Your task to perform on an android device: turn on improve location accuracy Image 0: 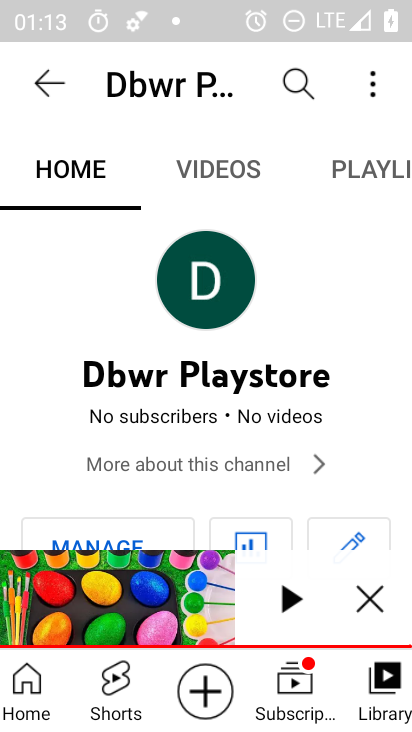
Step 0: press home button
Your task to perform on an android device: turn on improve location accuracy Image 1: 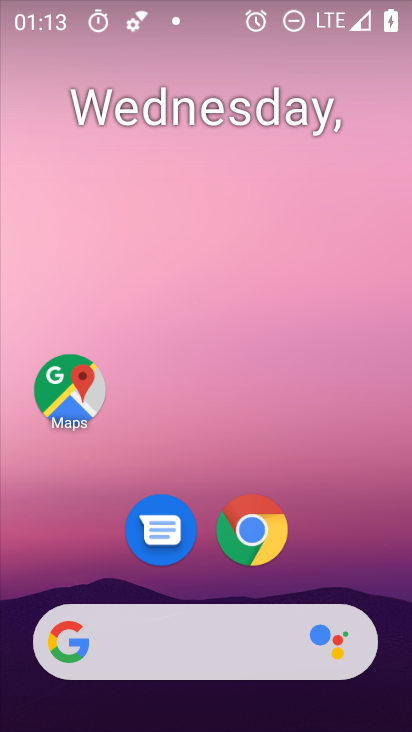
Step 1: drag from (381, 627) to (407, 132)
Your task to perform on an android device: turn on improve location accuracy Image 2: 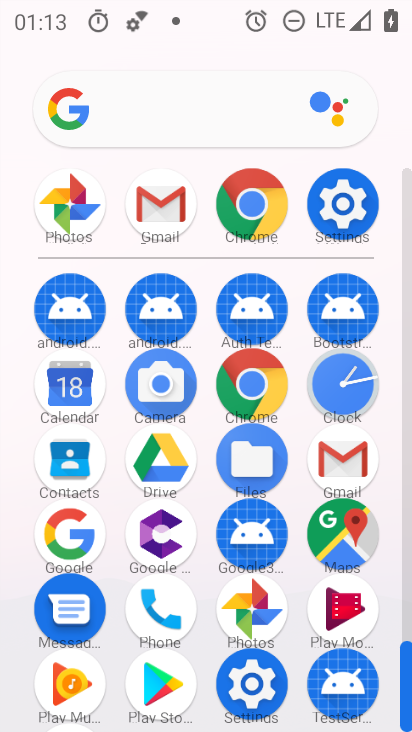
Step 2: click (406, 132)
Your task to perform on an android device: turn on improve location accuracy Image 3: 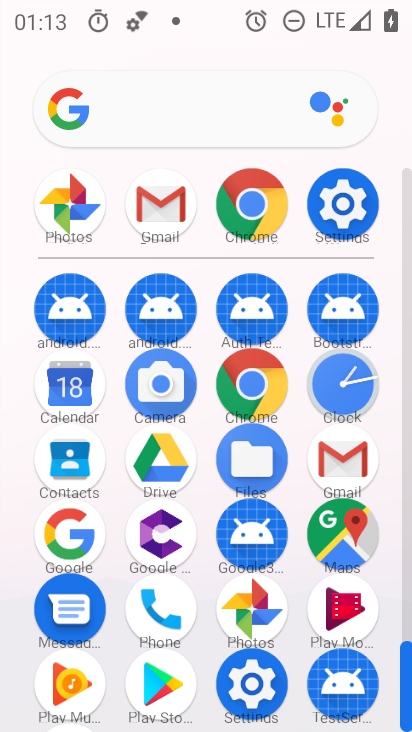
Step 3: click (327, 216)
Your task to perform on an android device: turn on improve location accuracy Image 4: 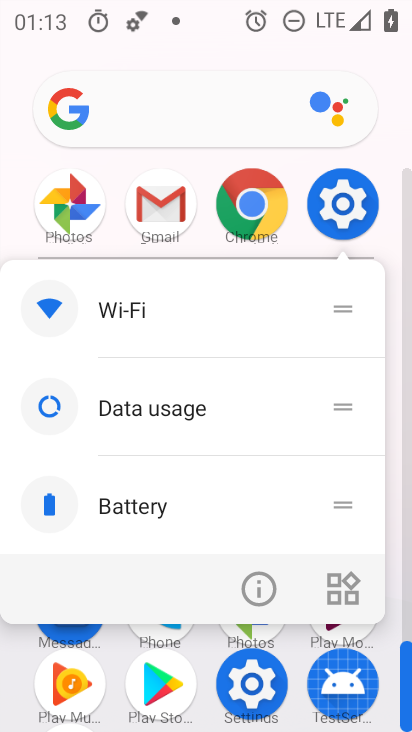
Step 4: click (327, 216)
Your task to perform on an android device: turn on improve location accuracy Image 5: 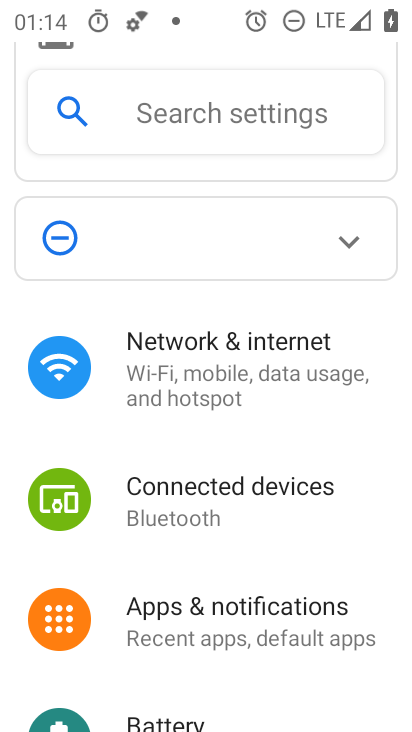
Step 5: drag from (288, 694) to (289, 124)
Your task to perform on an android device: turn on improve location accuracy Image 6: 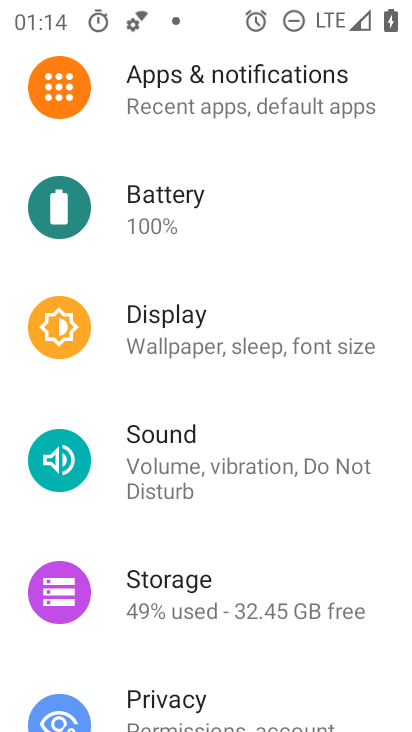
Step 6: drag from (222, 677) to (265, 273)
Your task to perform on an android device: turn on improve location accuracy Image 7: 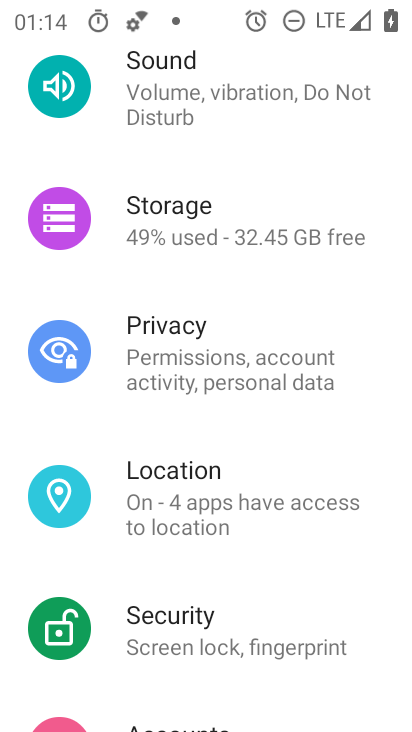
Step 7: click (191, 557)
Your task to perform on an android device: turn on improve location accuracy Image 8: 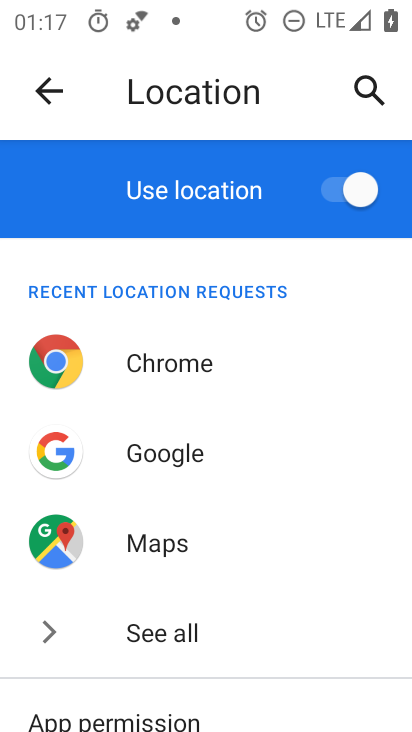
Step 8: drag from (272, 625) to (282, 146)
Your task to perform on an android device: turn on improve location accuracy Image 9: 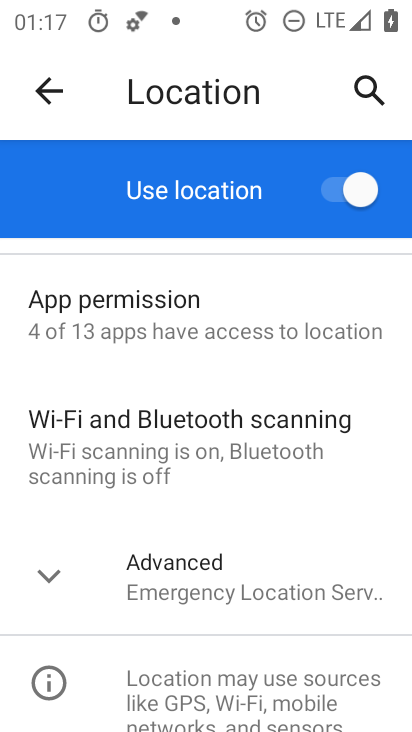
Step 9: click (197, 592)
Your task to perform on an android device: turn on improve location accuracy Image 10: 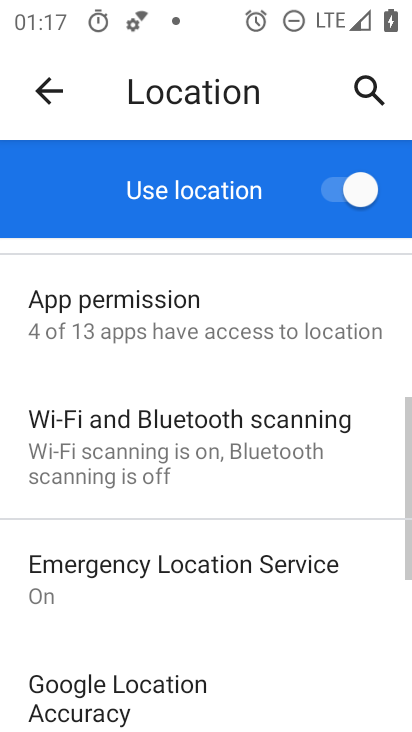
Step 10: drag from (205, 658) to (266, 327)
Your task to perform on an android device: turn on improve location accuracy Image 11: 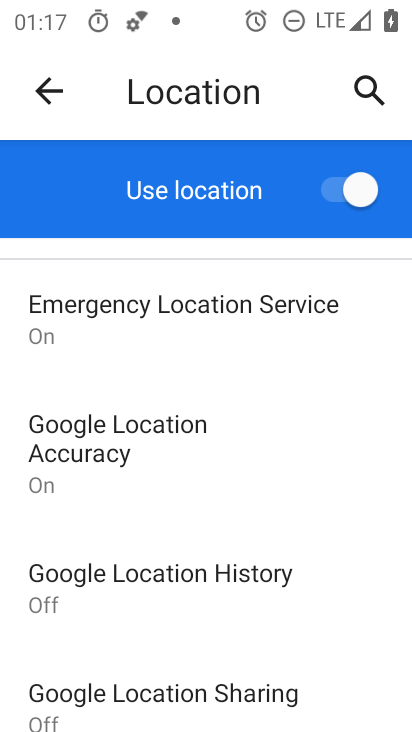
Step 11: click (218, 439)
Your task to perform on an android device: turn on improve location accuracy Image 12: 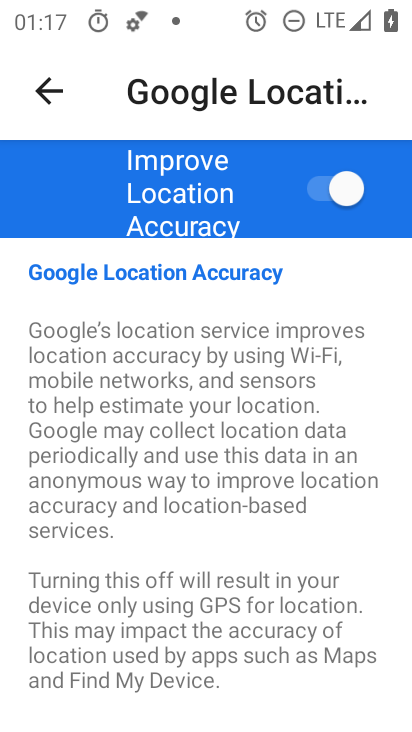
Step 12: task complete